Your task to perform on an android device: Go to Google Image 0: 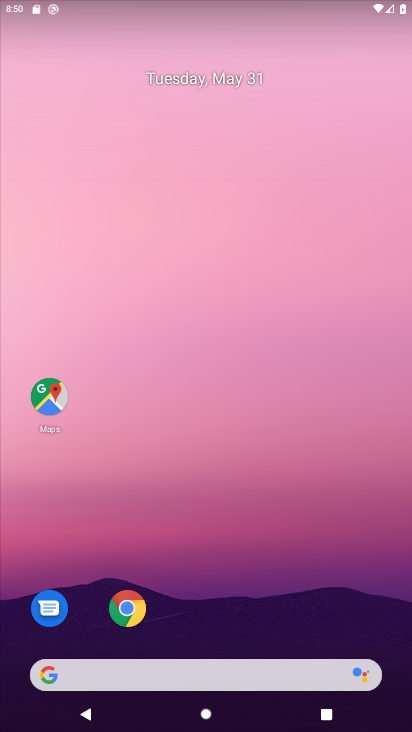
Step 0: drag from (235, 601) to (172, 180)
Your task to perform on an android device: Go to Google Image 1: 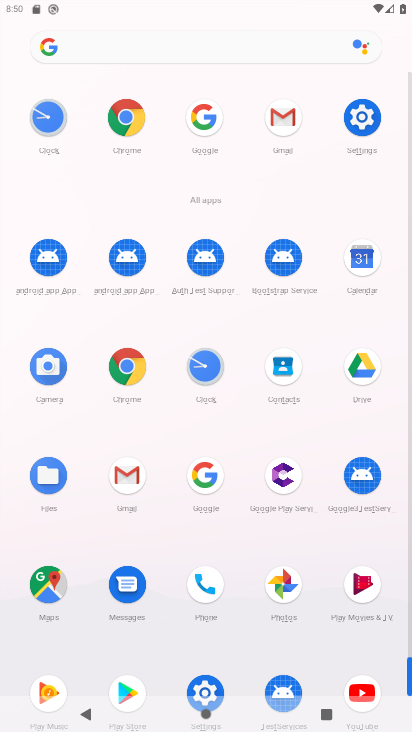
Step 1: click (200, 115)
Your task to perform on an android device: Go to Google Image 2: 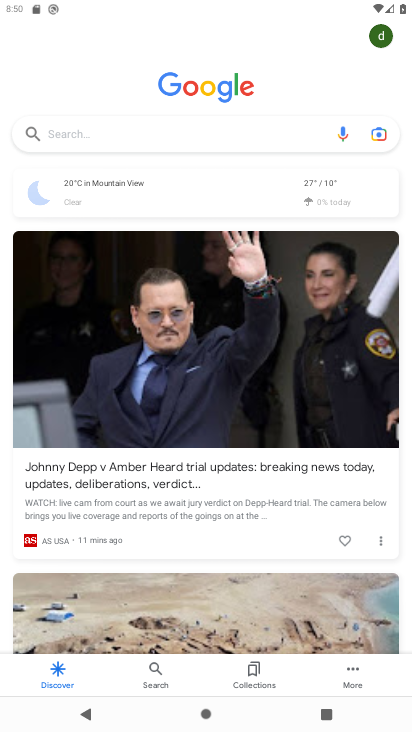
Step 2: task complete